Your task to perform on an android device: Open battery settings Image 0: 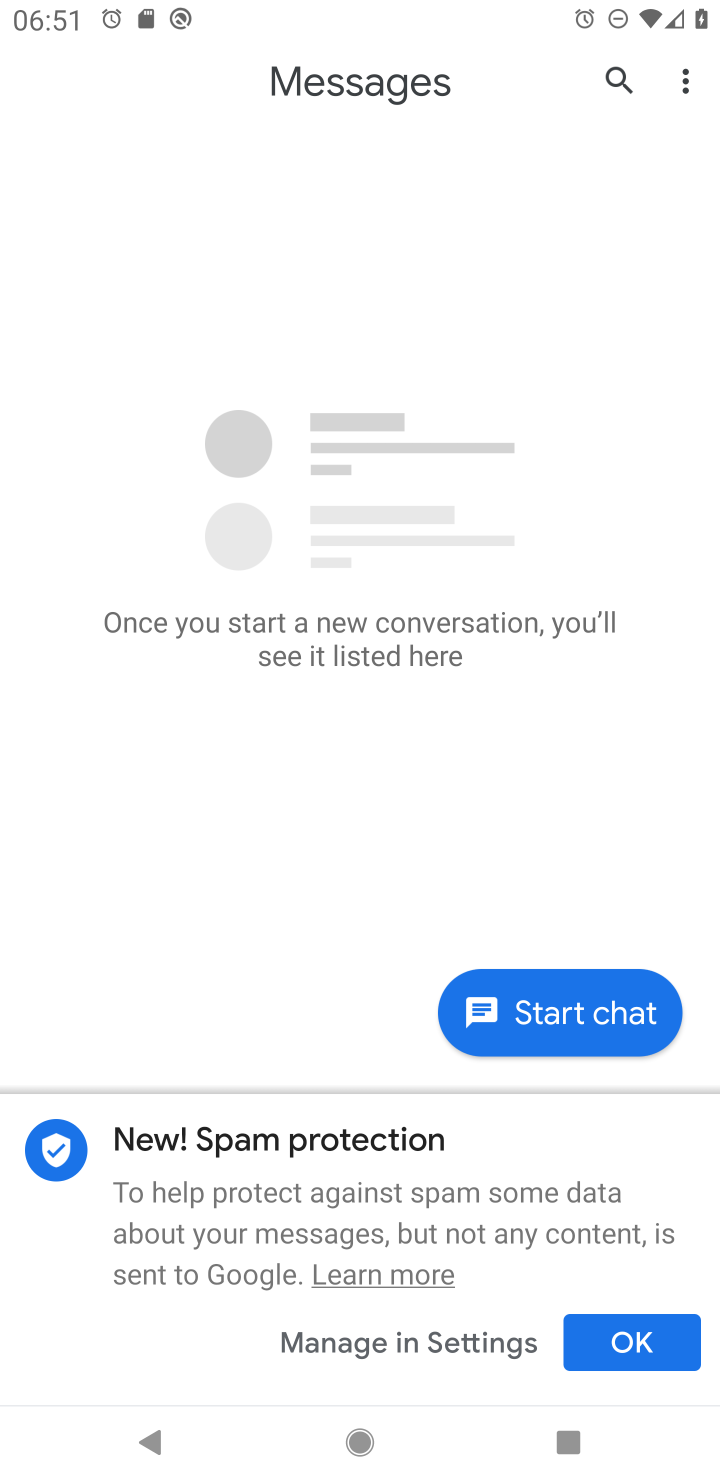
Step 0: press home button
Your task to perform on an android device: Open battery settings Image 1: 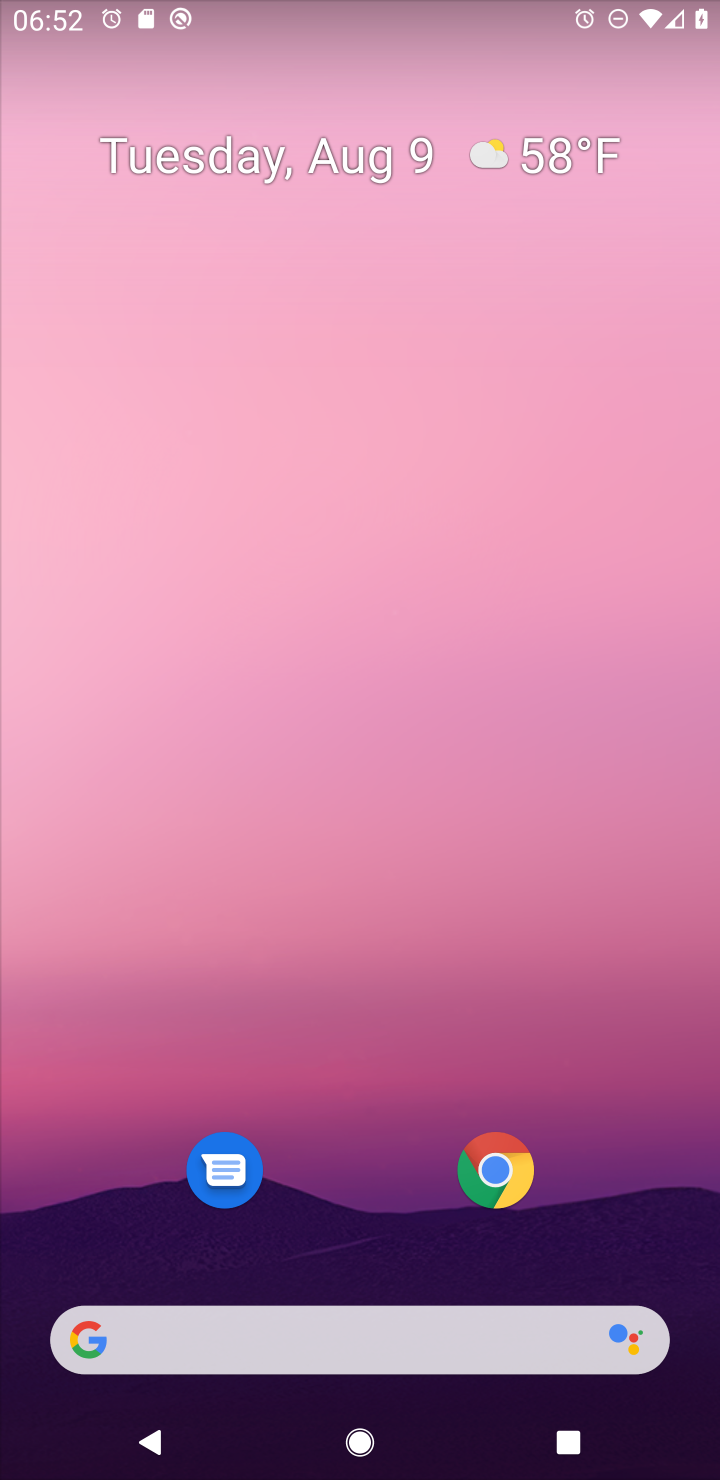
Step 1: drag from (432, 925) to (414, 88)
Your task to perform on an android device: Open battery settings Image 2: 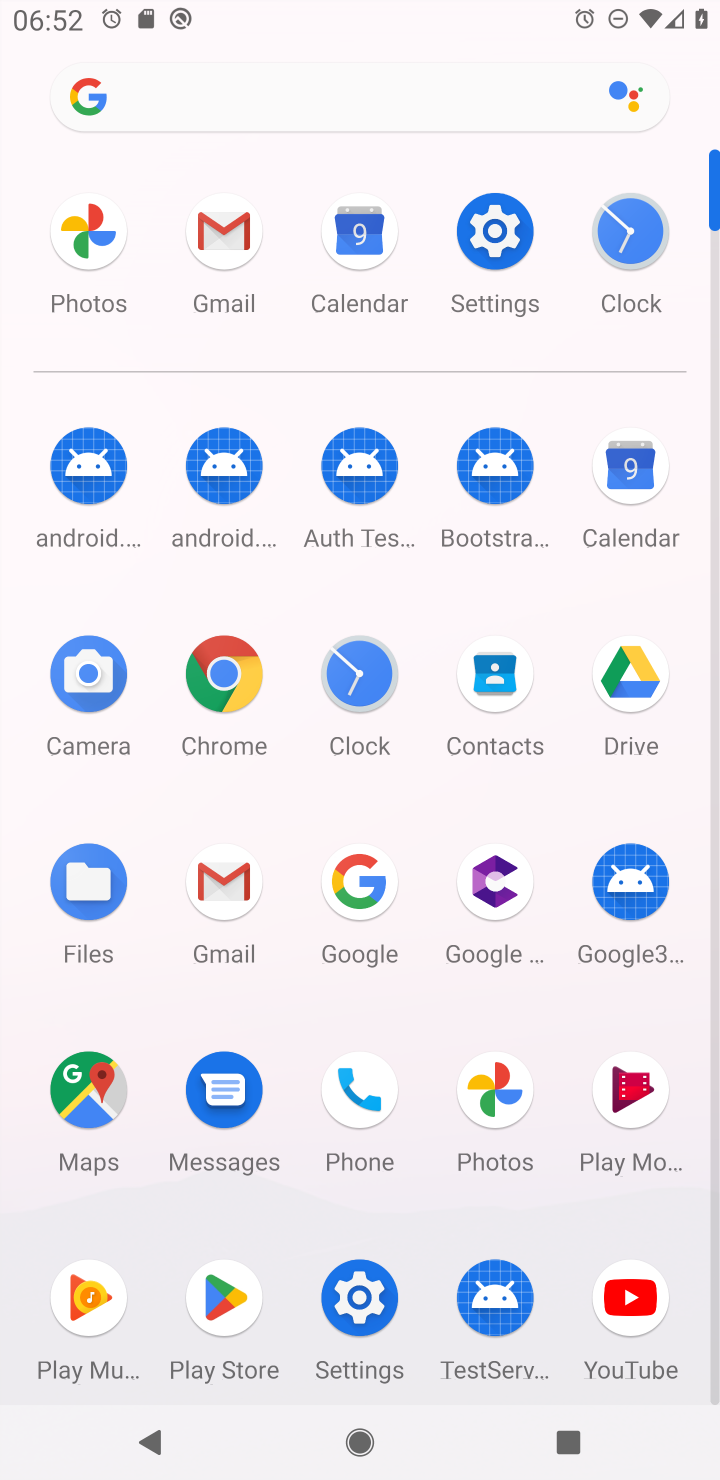
Step 2: click (485, 264)
Your task to perform on an android device: Open battery settings Image 3: 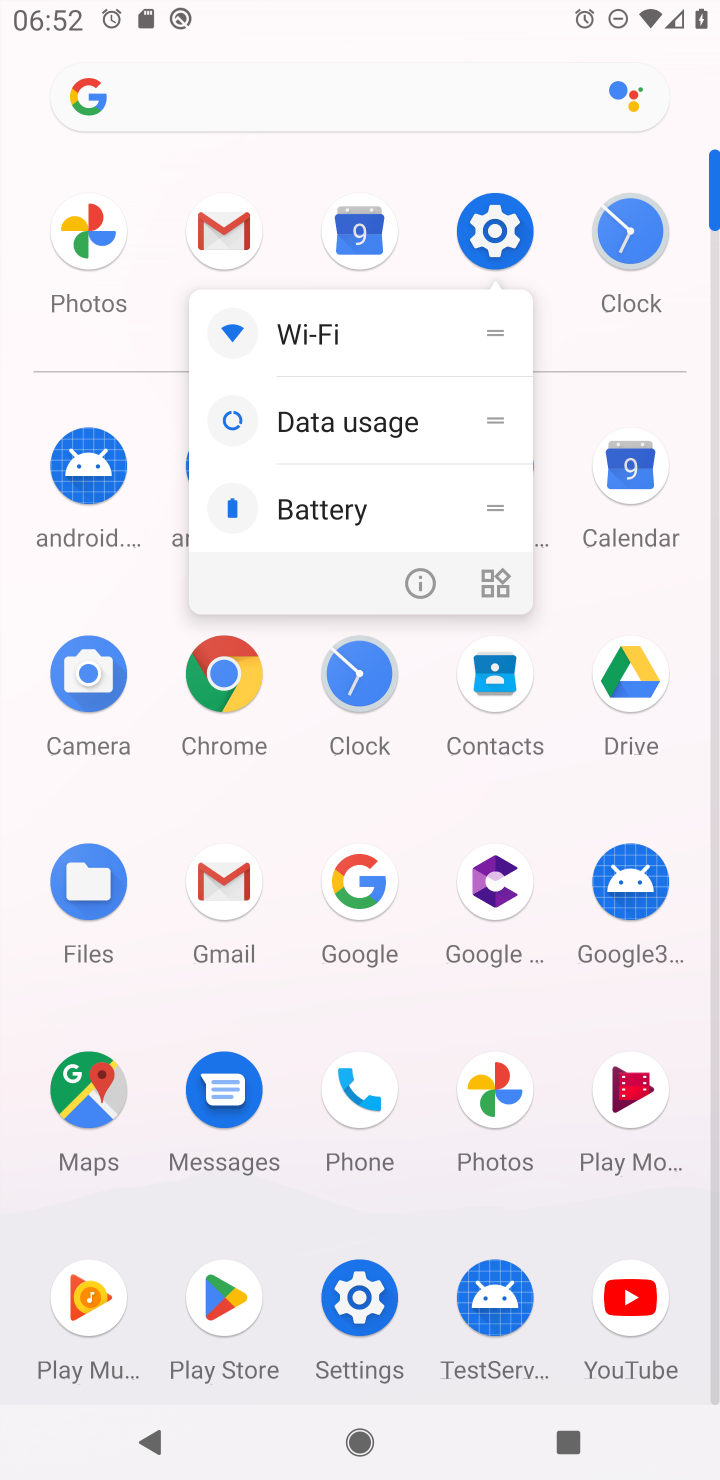
Step 3: click (490, 245)
Your task to perform on an android device: Open battery settings Image 4: 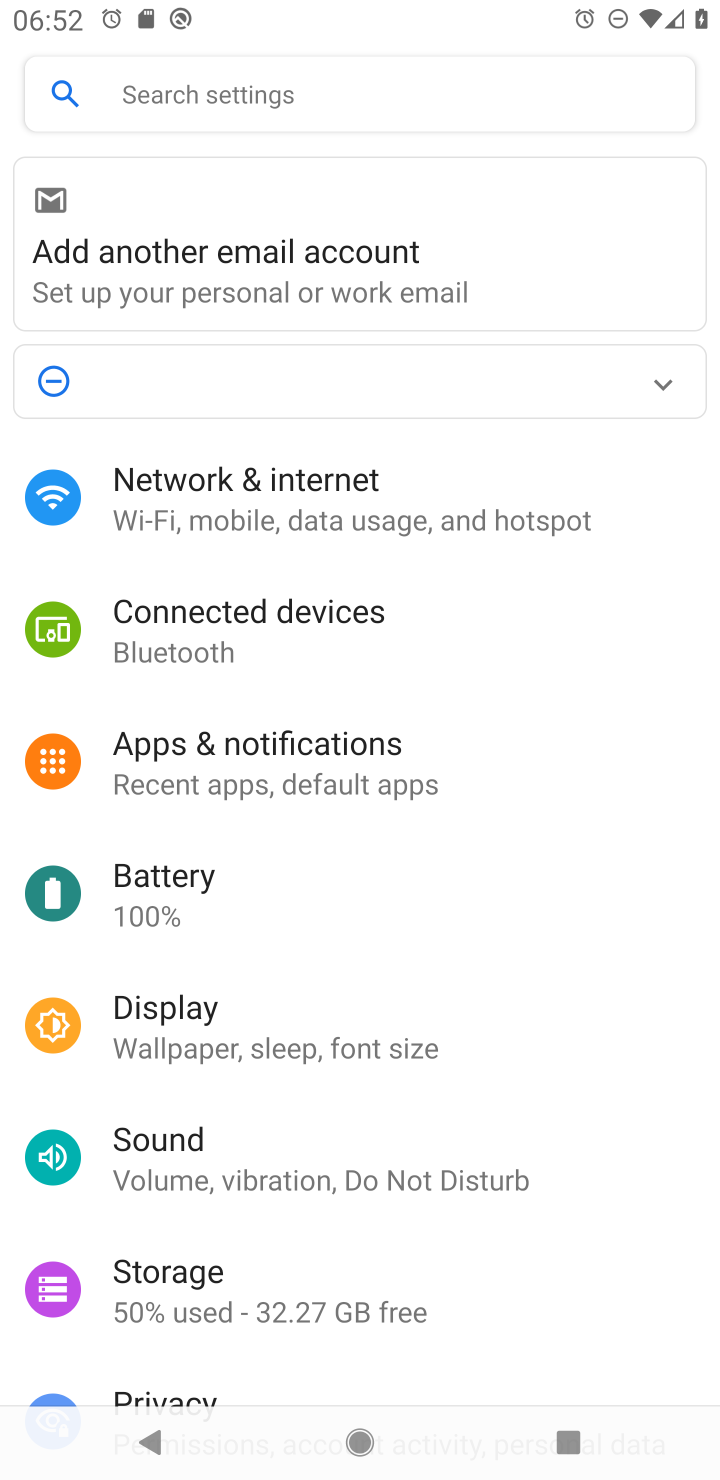
Step 4: click (183, 909)
Your task to perform on an android device: Open battery settings Image 5: 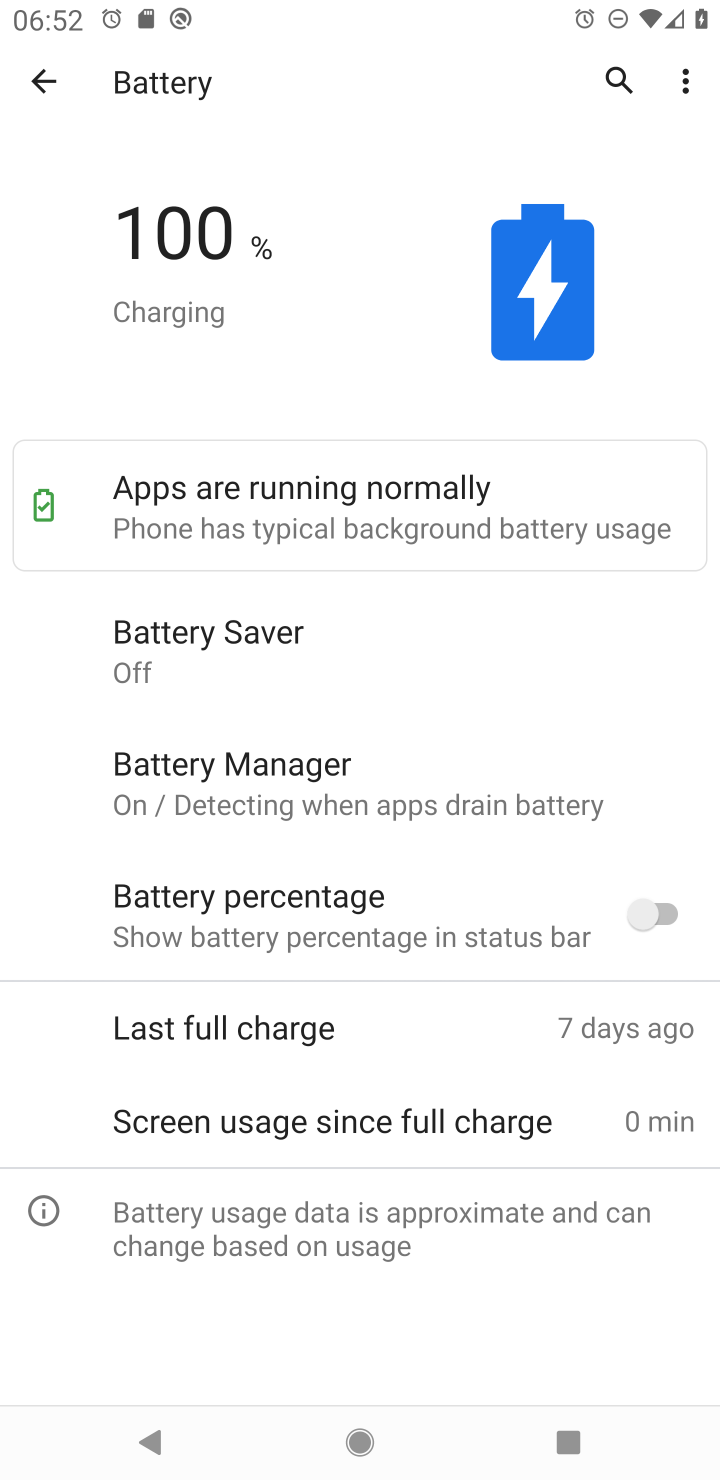
Step 5: task complete